Your task to perform on an android device: Open the calendar app, open the side menu, and click the "Day" option Image 0: 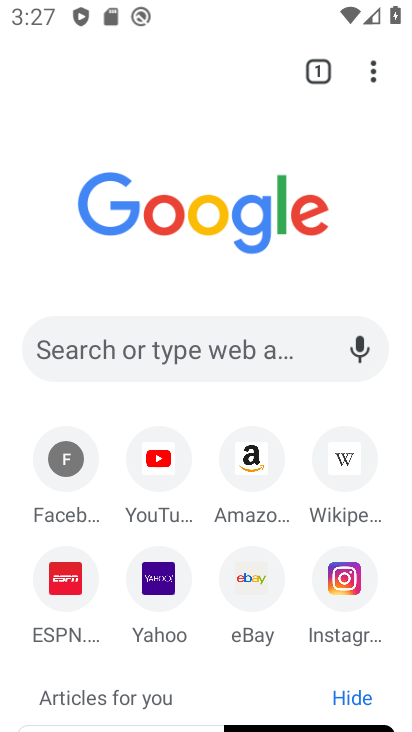
Step 0: press home button
Your task to perform on an android device: Open the calendar app, open the side menu, and click the "Day" option Image 1: 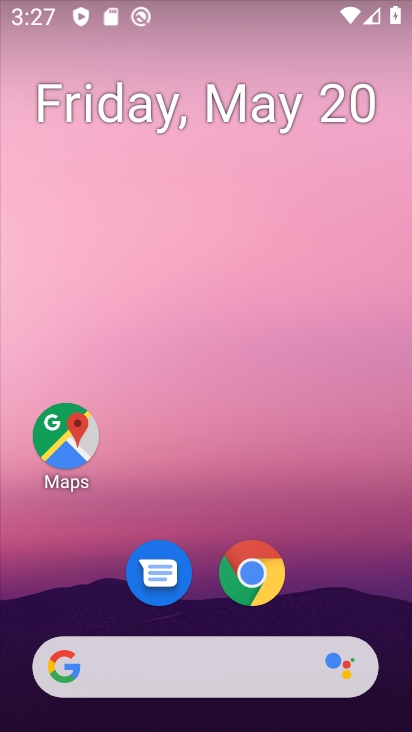
Step 1: drag from (382, 618) to (341, 162)
Your task to perform on an android device: Open the calendar app, open the side menu, and click the "Day" option Image 2: 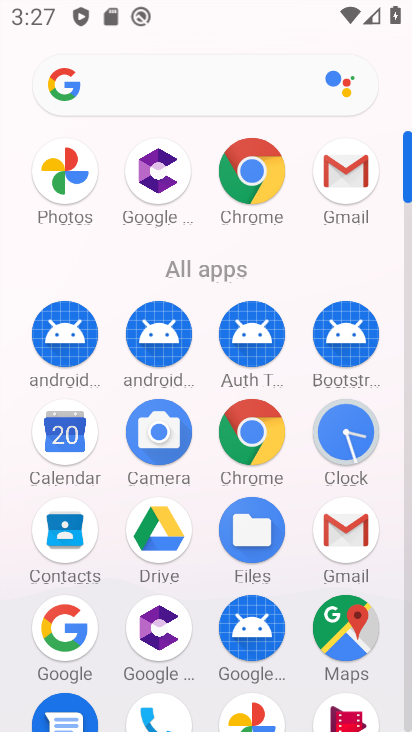
Step 2: click (406, 693)
Your task to perform on an android device: Open the calendar app, open the side menu, and click the "Day" option Image 3: 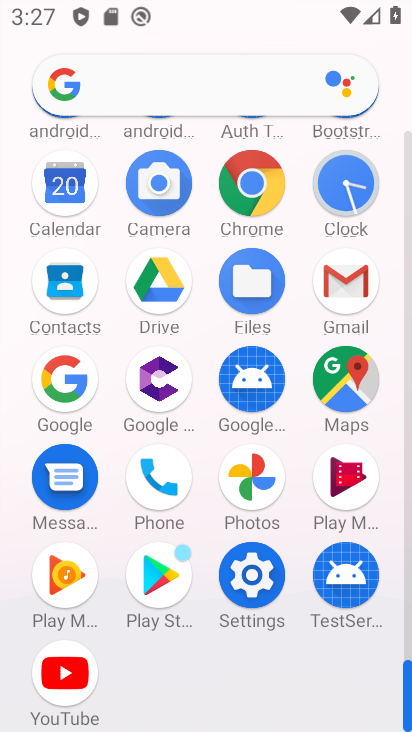
Step 3: click (62, 183)
Your task to perform on an android device: Open the calendar app, open the side menu, and click the "Day" option Image 4: 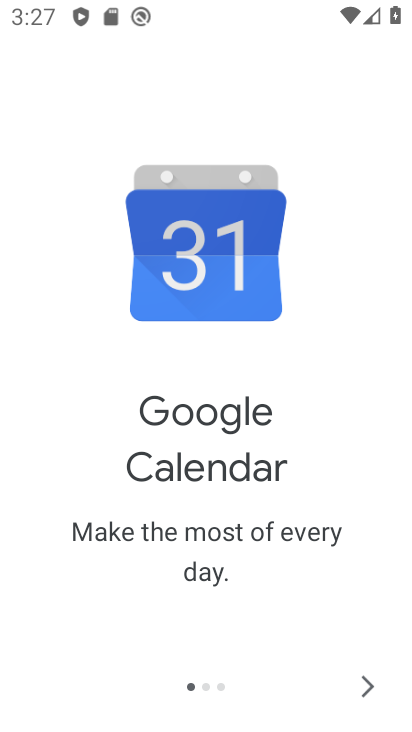
Step 4: click (366, 684)
Your task to perform on an android device: Open the calendar app, open the side menu, and click the "Day" option Image 5: 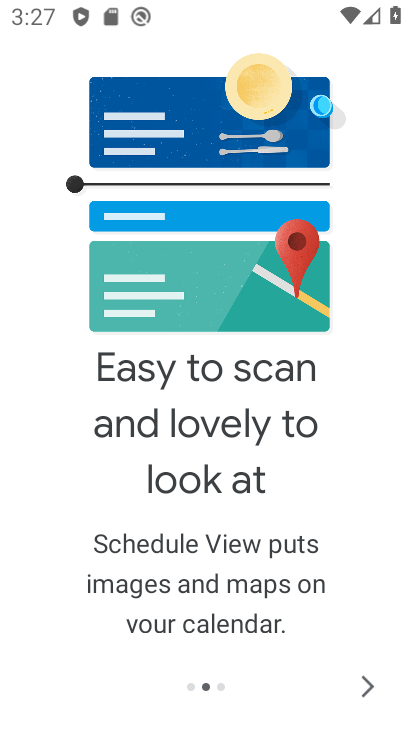
Step 5: click (366, 684)
Your task to perform on an android device: Open the calendar app, open the side menu, and click the "Day" option Image 6: 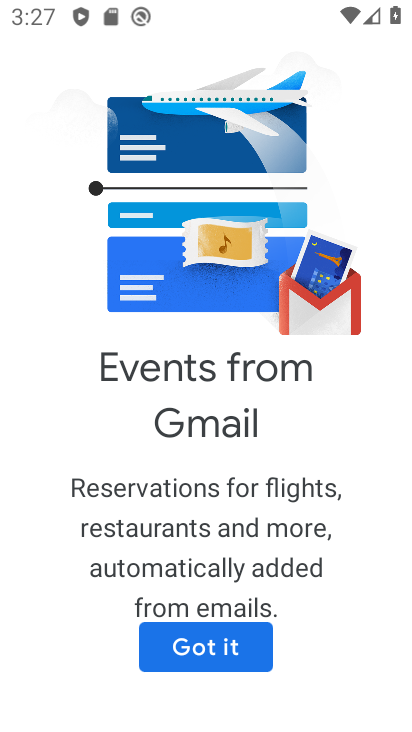
Step 6: click (204, 646)
Your task to perform on an android device: Open the calendar app, open the side menu, and click the "Day" option Image 7: 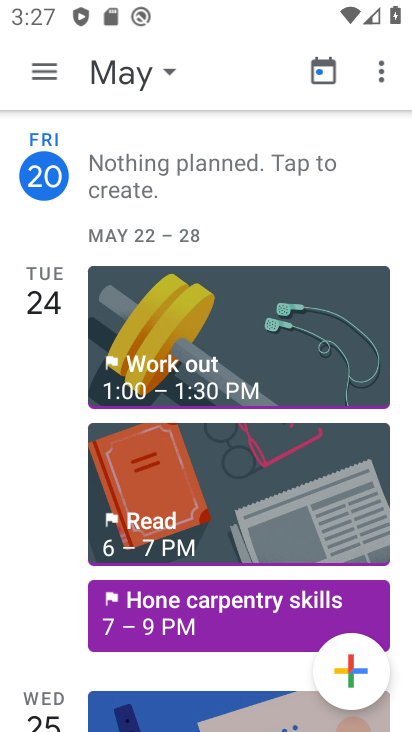
Step 7: click (42, 66)
Your task to perform on an android device: Open the calendar app, open the side menu, and click the "Day" option Image 8: 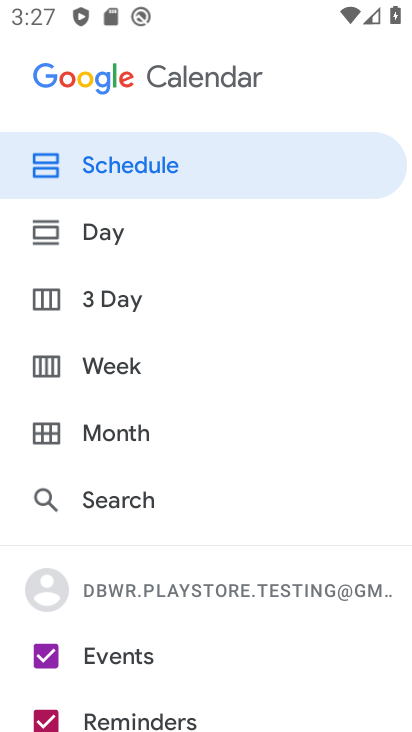
Step 8: click (109, 236)
Your task to perform on an android device: Open the calendar app, open the side menu, and click the "Day" option Image 9: 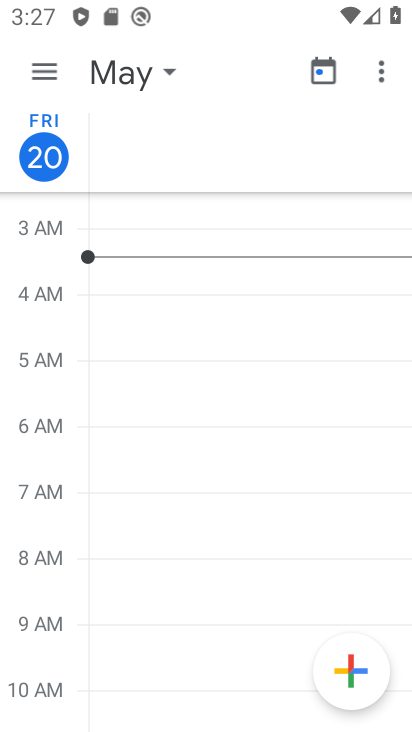
Step 9: task complete